Your task to perform on an android device: turn on bluetooth scan Image 0: 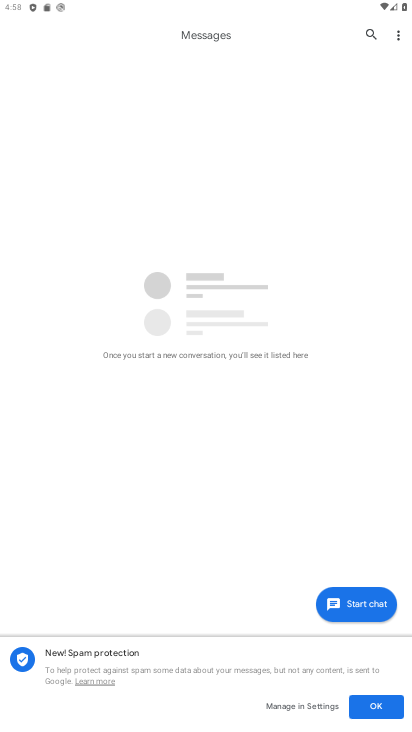
Step 0: press home button
Your task to perform on an android device: turn on bluetooth scan Image 1: 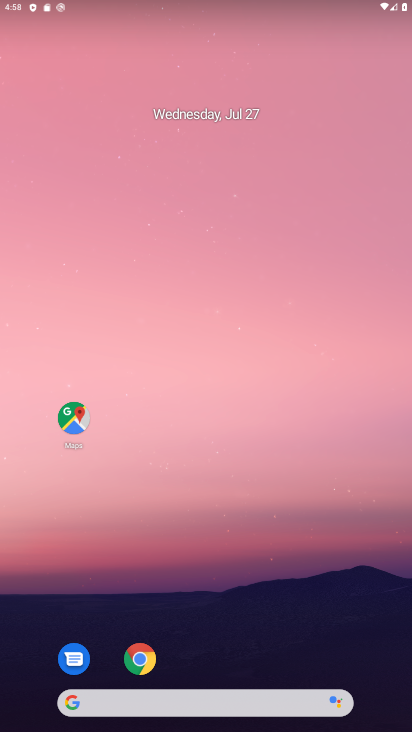
Step 1: drag from (226, 601) to (287, 137)
Your task to perform on an android device: turn on bluetooth scan Image 2: 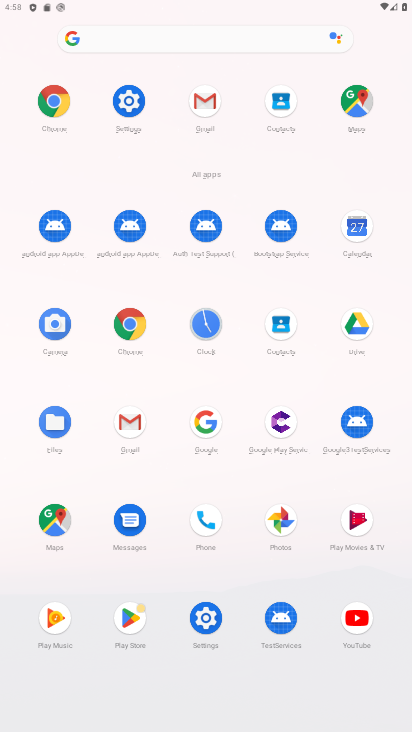
Step 2: click (196, 614)
Your task to perform on an android device: turn on bluetooth scan Image 3: 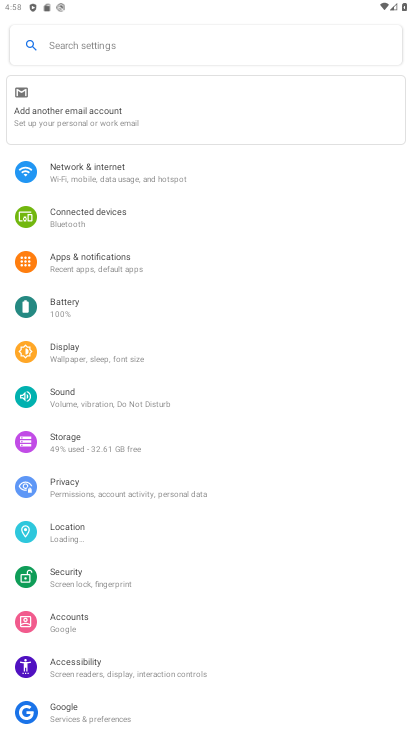
Step 3: click (65, 529)
Your task to perform on an android device: turn on bluetooth scan Image 4: 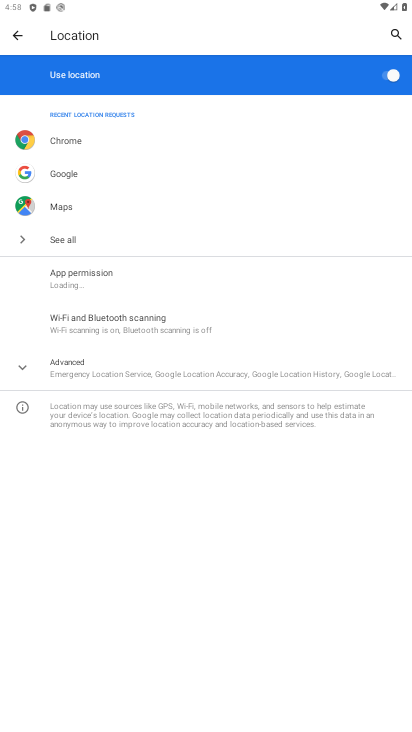
Step 4: click (97, 361)
Your task to perform on an android device: turn on bluetooth scan Image 5: 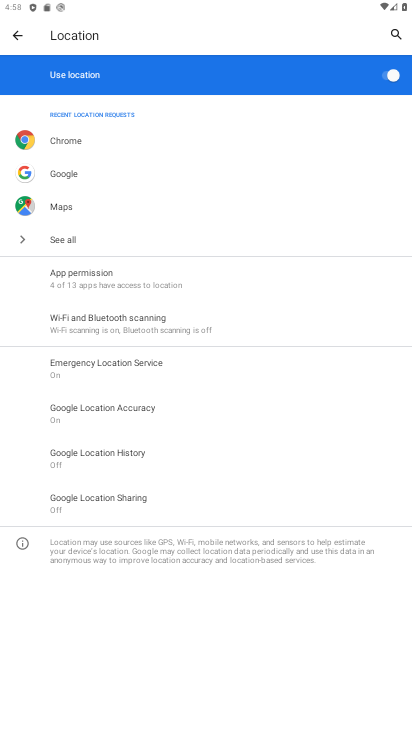
Step 5: click (153, 311)
Your task to perform on an android device: turn on bluetooth scan Image 6: 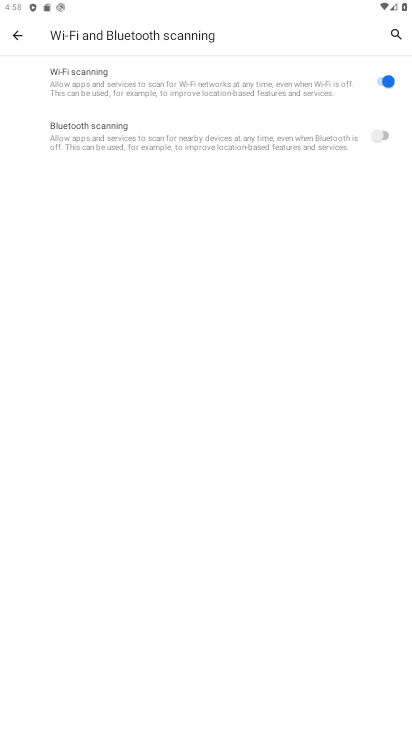
Step 6: click (304, 151)
Your task to perform on an android device: turn on bluetooth scan Image 7: 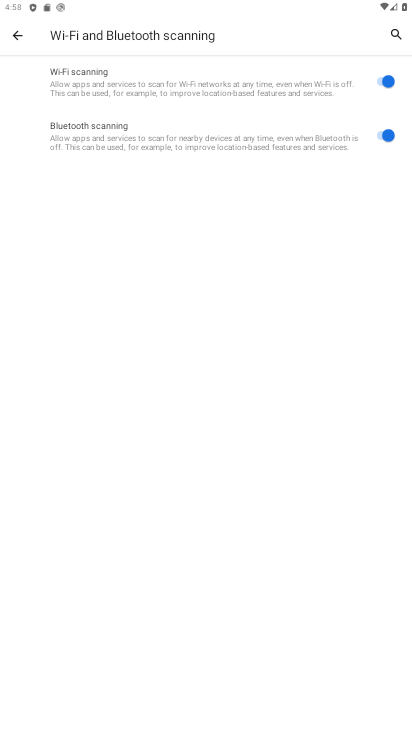
Step 7: task complete